Your task to perform on an android device: turn notification dots on Image 0: 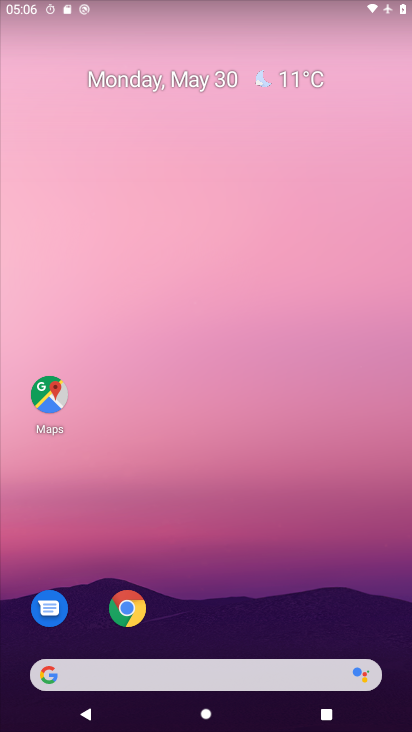
Step 0: drag from (300, 555) to (249, 13)
Your task to perform on an android device: turn notification dots on Image 1: 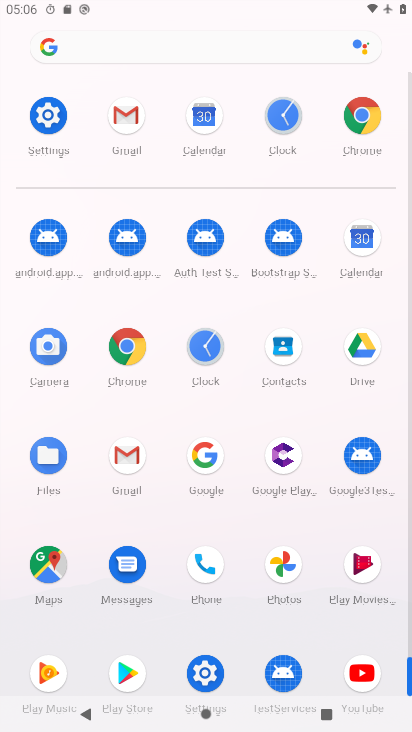
Step 1: click (46, 100)
Your task to perform on an android device: turn notification dots on Image 2: 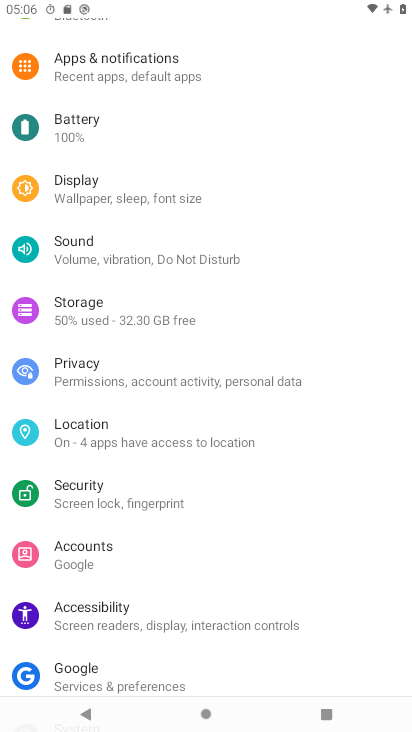
Step 2: click (177, 50)
Your task to perform on an android device: turn notification dots on Image 3: 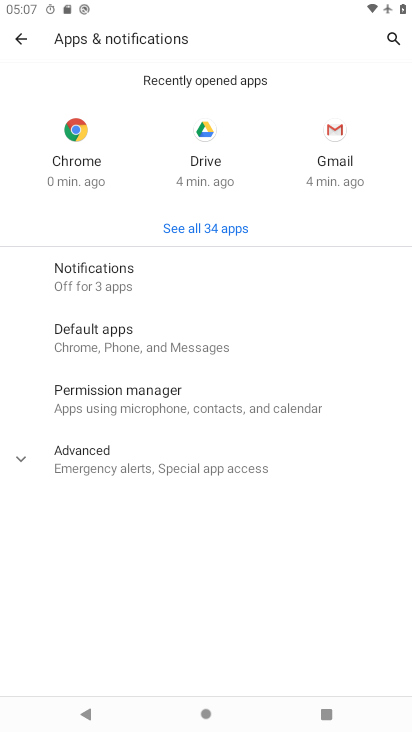
Step 3: click (146, 273)
Your task to perform on an android device: turn notification dots on Image 4: 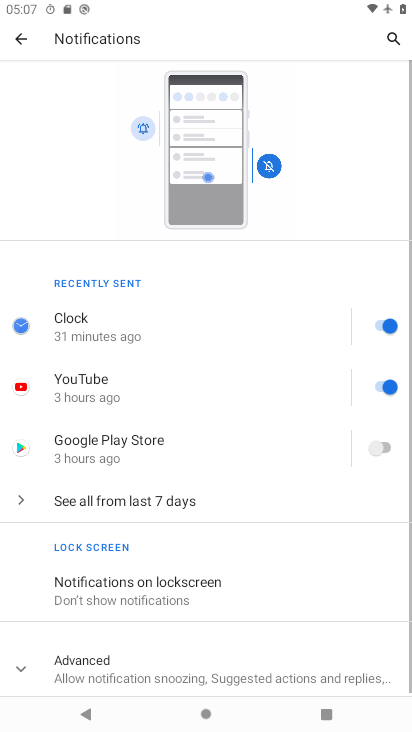
Step 4: click (142, 674)
Your task to perform on an android device: turn notification dots on Image 5: 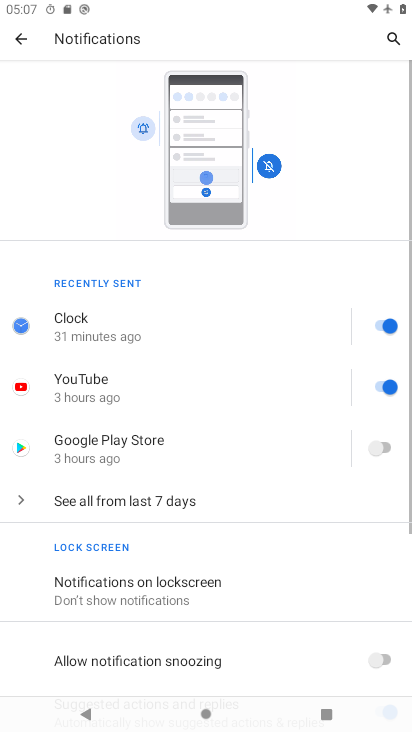
Step 5: drag from (345, 538) to (321, 246)
Your task to perform on an android device: turn notification dots on Image 6: 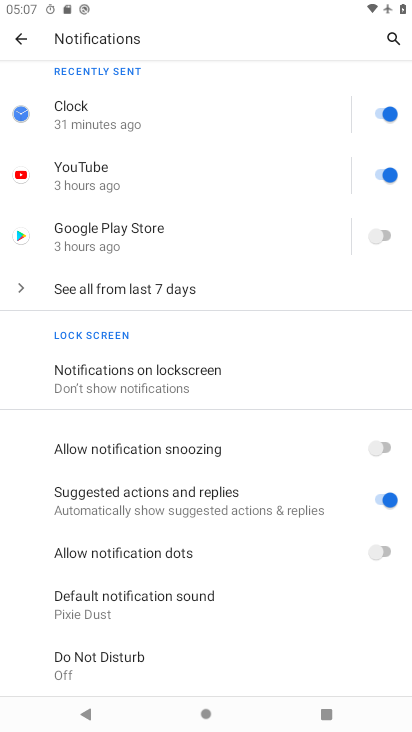
Step 6: click (381, 543)
Your task to perform on an android device: turn notification dots on Image 7: 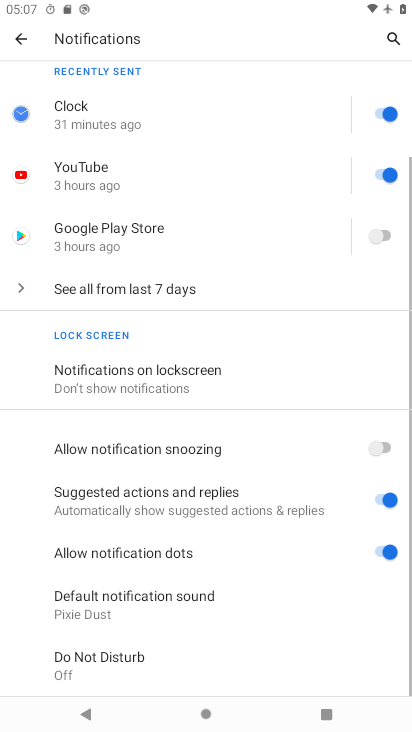
Step 7: task complete